Your task to perform on an android device: open a new tab in the chrome app Image 0: 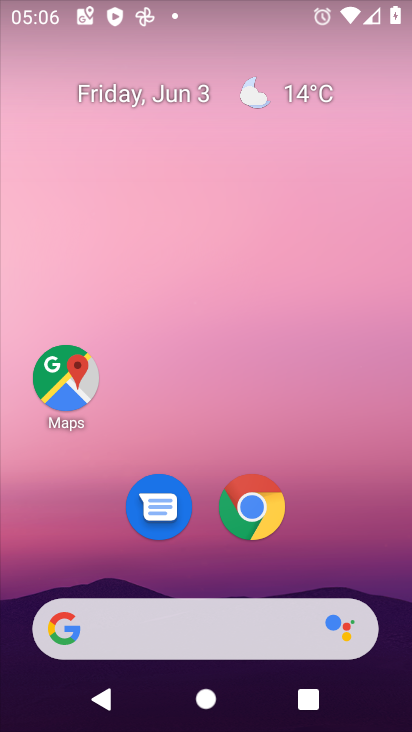
Step 0: click (264, 493)
Your task to perform on an android device: open a new tab in the chrome app Image 1: 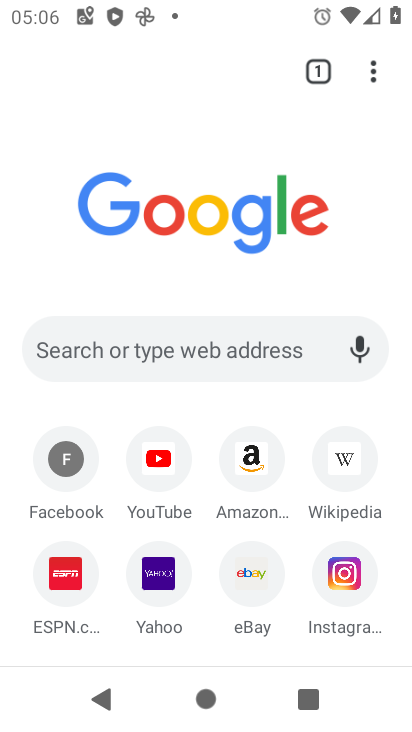
Step 1: click (313, 74)
Your task to perform on an android device: open a new tab in the chrome app Image 2: 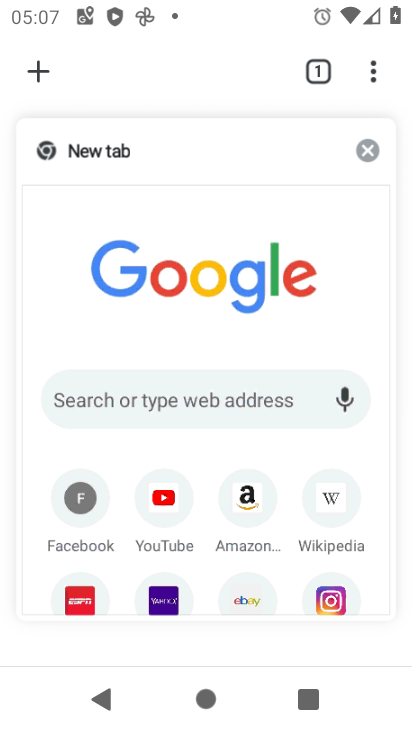
Step 2: click (39, 68)
Your task to perform on an android device: open a new tab in the chrome app Image 3: 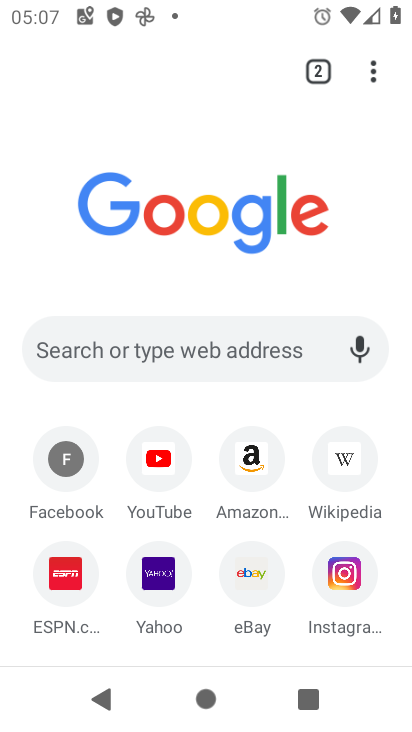
Step 3: task complete